Your task to perform on an android device: toggle javascript in the chrome app Image 0: 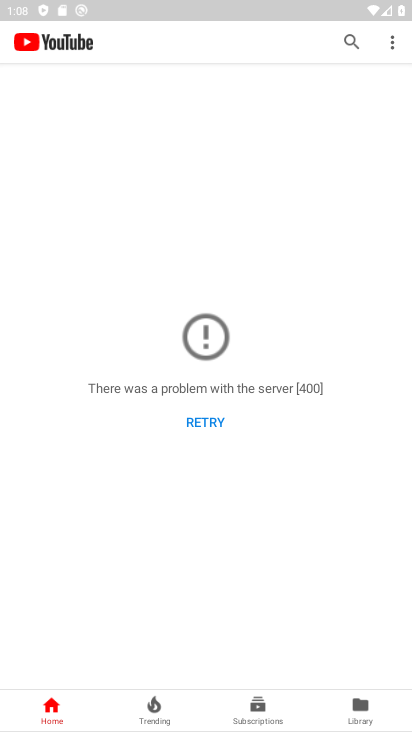
Step 0: press home button
Your task to perform on an android device: toggle javascript in the chrome app Image 1: 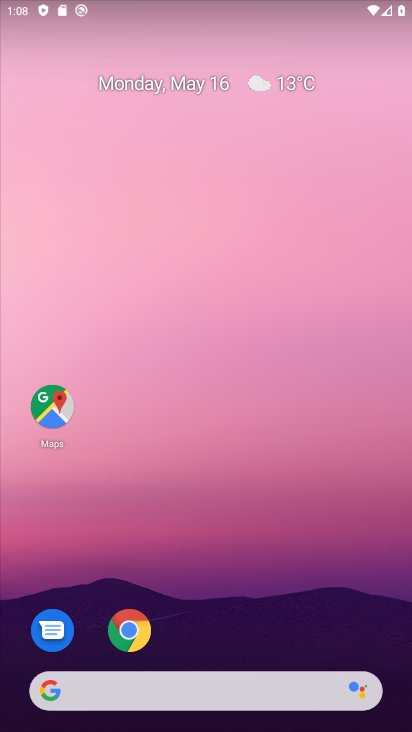
Step 1: click (145, 638)
Your task to perform on an android device: toggle javascript in the chrome app Image 2: 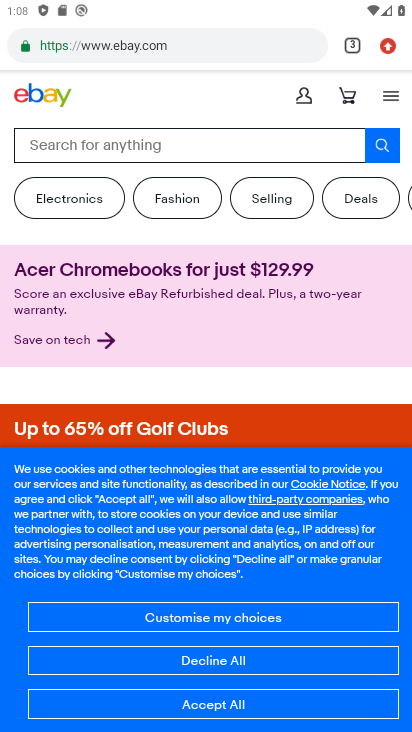
Step 2: click (347, 45)
Your task to perform on an android device: toggle javascript in the chrome app Image 3: 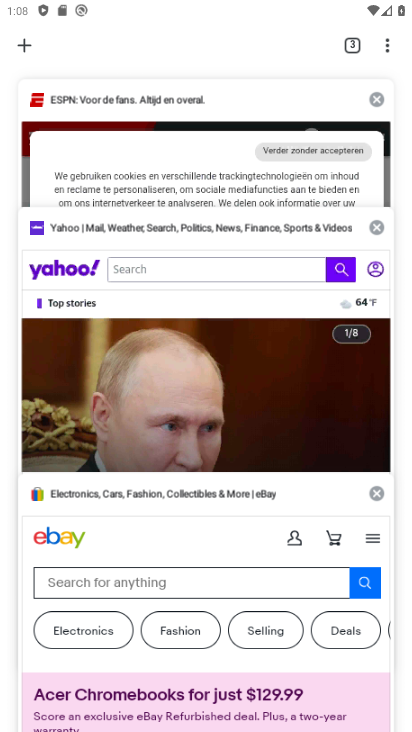
Step 3: click (383, 44)
Your task to perform on an android device: toggle javascript in the chrome app Image 4: 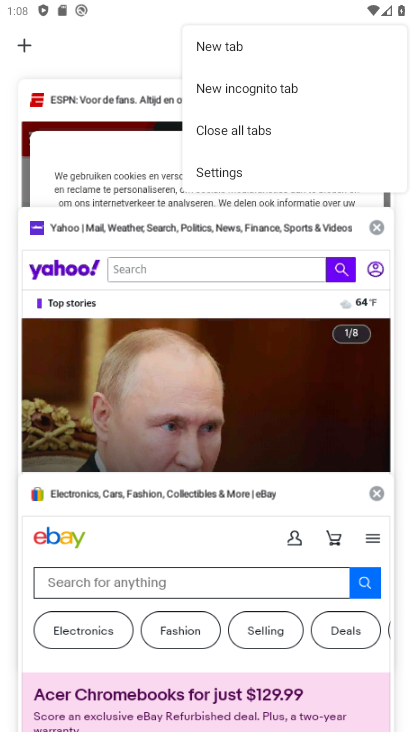
Step 4: click (266, 158)
Your task to perform on an android device: toggle javascript in the chrome app Image 5: 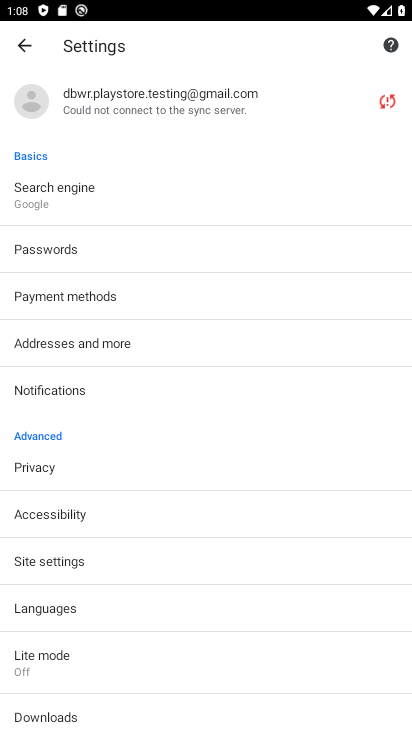
Step 5: drag from (144, 633) to (149, 340)
Your task to perform on an android device: toggle javascript in the chrome app Image 6: 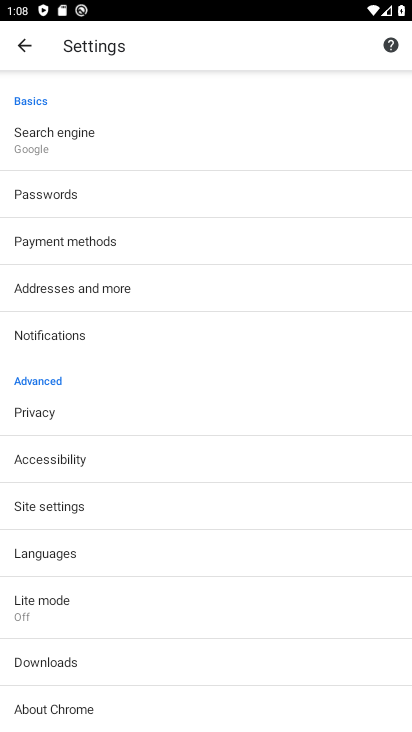
Step 6: drag from (212, 625) to (232, 382)
Your task to perform on an android device: toggle javascript in the chrome app Image 7: 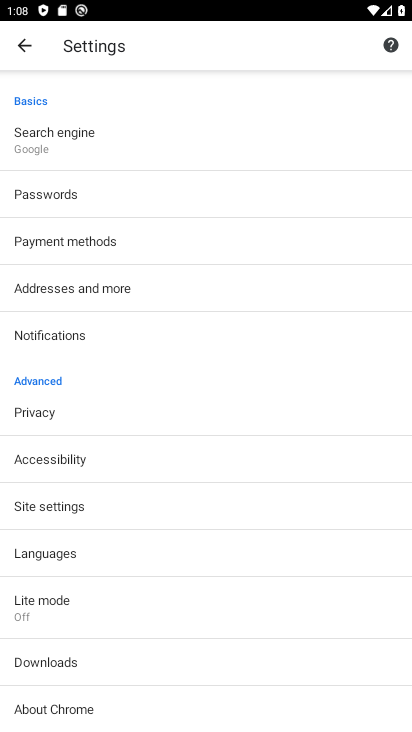
Step 7: click (61, 506)
Your task to perform on an android device: toggle javascript in the chrome app Image 8: 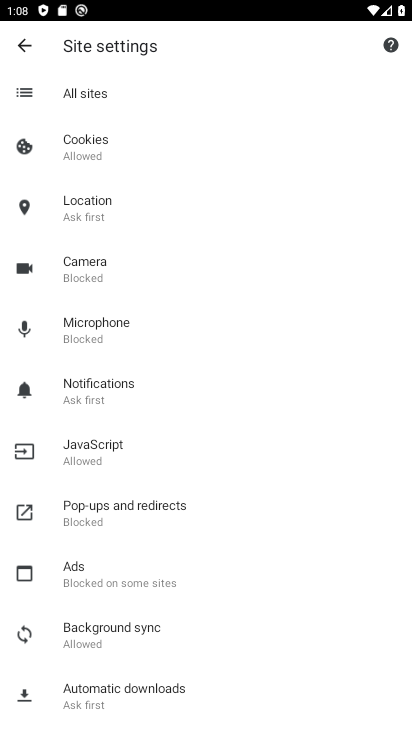
Step 8: drag from (178, 377) to (178, 479)
Your task to perform on an android device: toggle javascript in the chrome app Image 9: 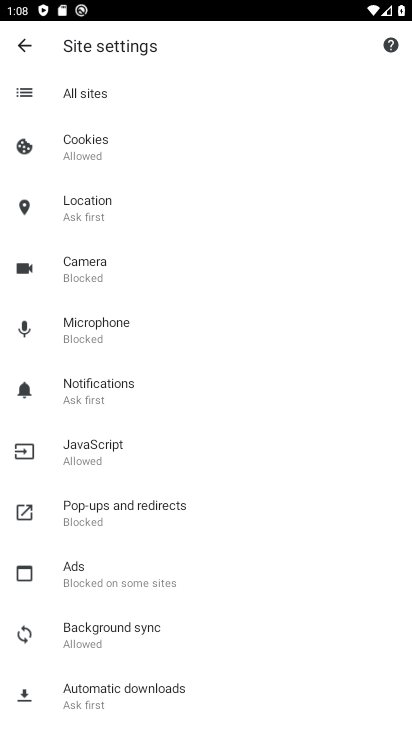
Step 9: drag from (245, 501) to (232, 234)
Your task to perform on an android device: toggle javascript in the chrome app Image 10: 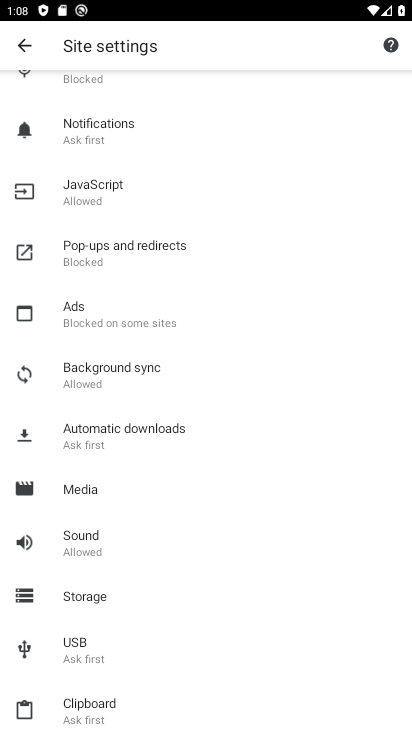
Step 10: drag from (182, 431) to (174, 280)
Your task to perform on an android device: toggle javascript in the chrome app Image 11: 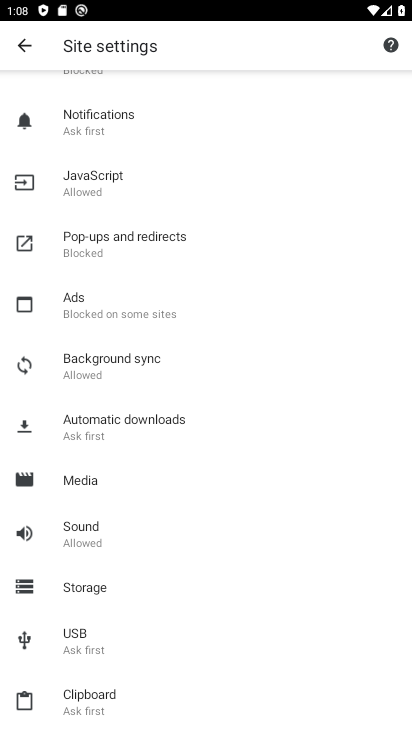
Step 11: drag from (236, 129) to (235, 465)
Your task to perform on an android device: toggle javascript in the chrome app Image 12: 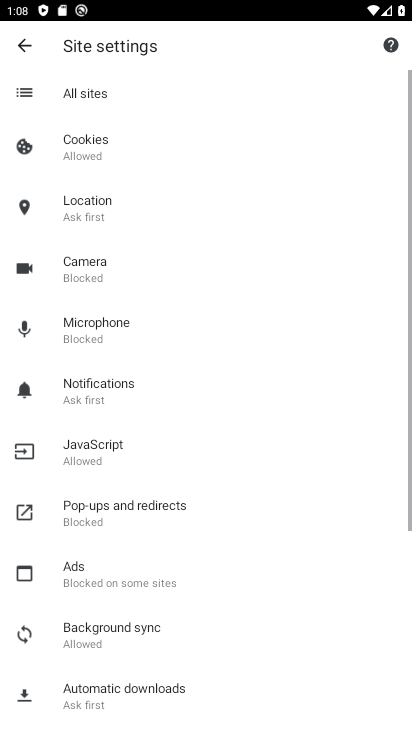
Step 12: click (79, 453)
Your task to perform on an android device: toggle javascript in the chrome app Image 13: 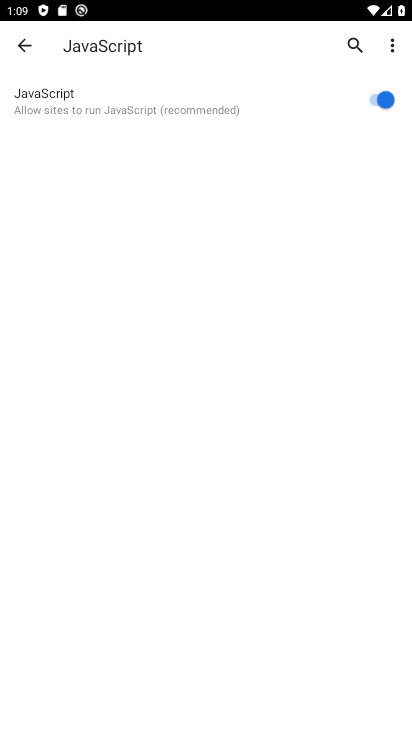
Step 13: click (387, 100)
Your task to perform on an android device: toggle javascript in the chrome app Image 14: 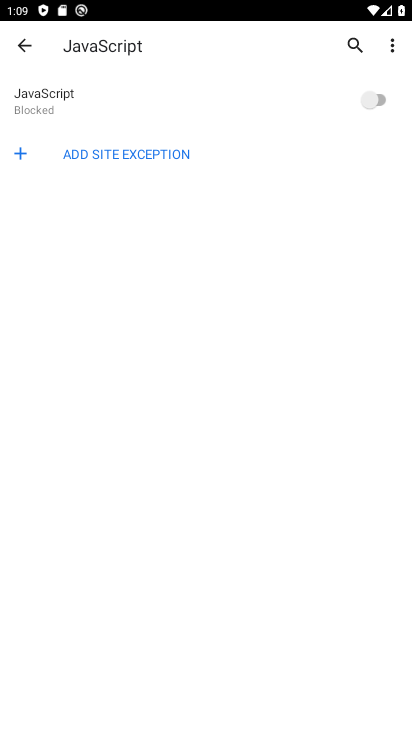
Step 14: task complete